Your task to perform on an android device: open wifi settings Image 0: 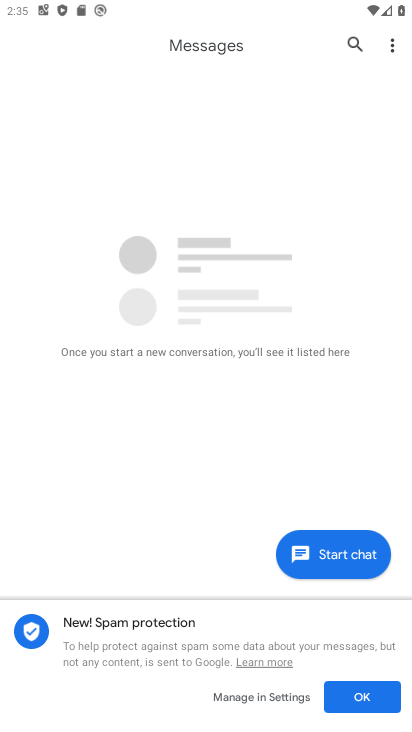
Step 0: press home button
Your task to perform on an android device: open wifi settings Image 1: 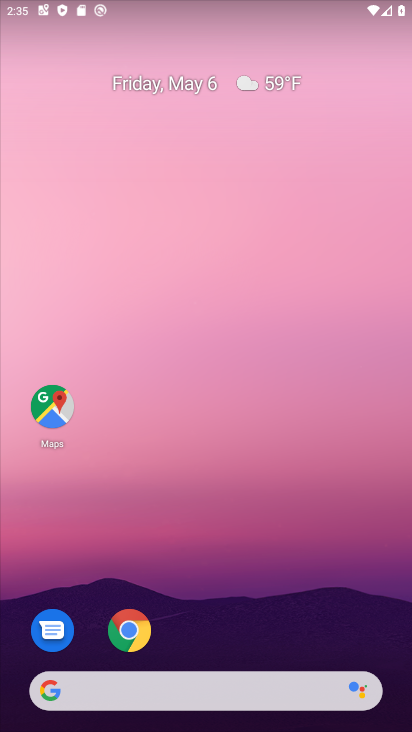
Step 1: drag from (210, 526) to (206, 33)
Your task to perform on an android device: open wifi settings Image 2: 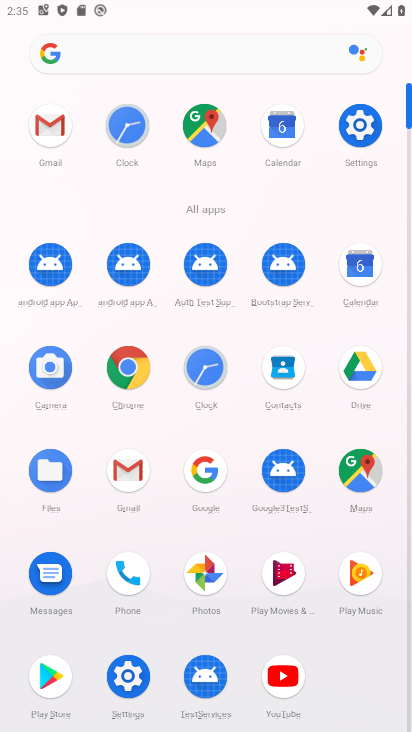
Step 2: click (343, 120)
Your task to perform on an android device: open wifi settings Image 3: 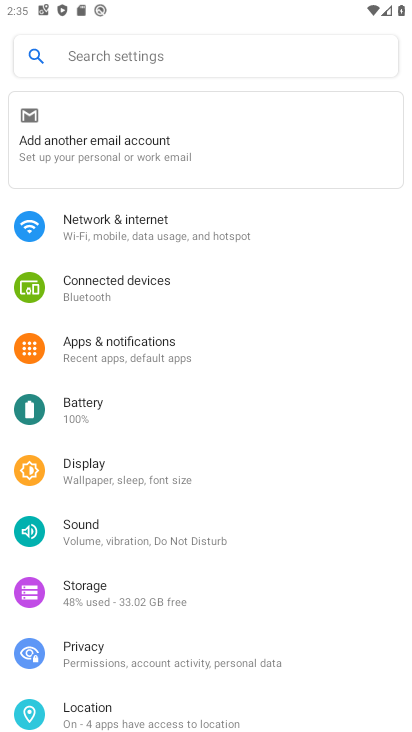
Step 3: click (143, 219)
Your task to perform on an android device: open wifi settings Image 4: 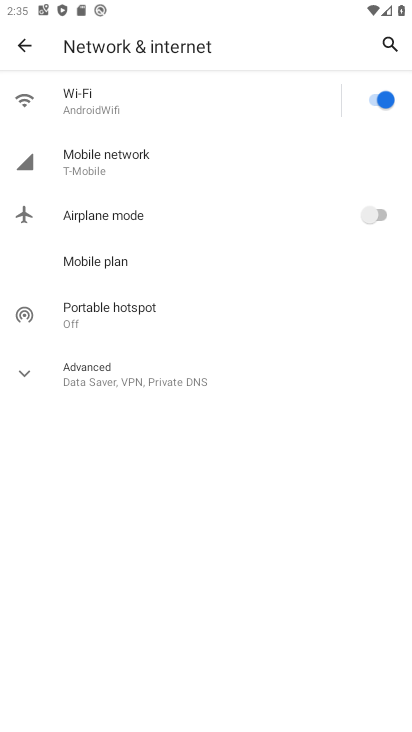
Step 4: click (134, 107)
Your task to perform on an android device: open wifi settings Image 5: 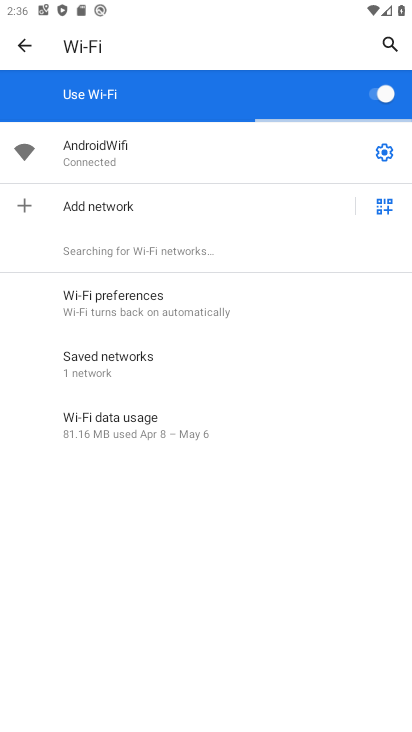
Step 5: task complete